Your task to perform on an android device: turn off airplane mode Image 0: 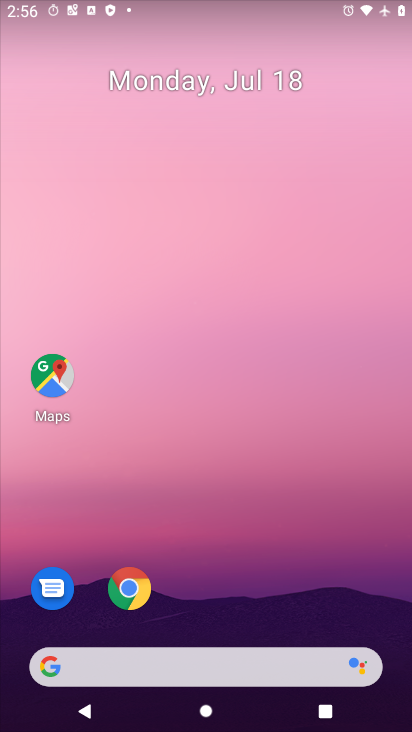
Step 0: drag from (221, 594) to (379, 7)
Your task to perform on an android device: turn off airplane mode Image 1: 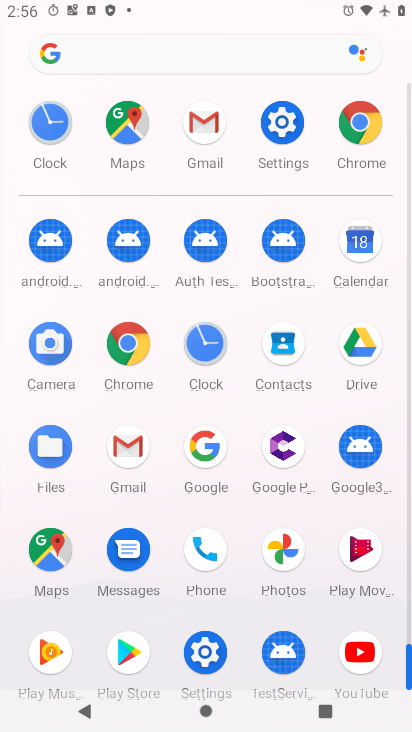
Step 1: click (291, 135)
Your task to perform on an android device: turn off airplane mode Image 2: 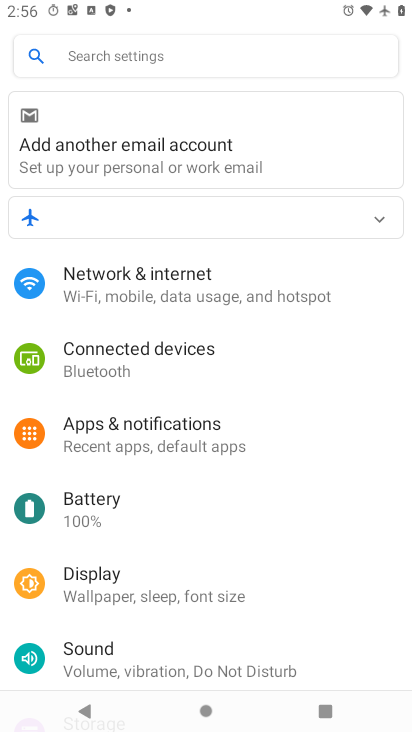
Step 2: drag from (162, 549) to (193, 312)
Your task to perform on an android device: turn off airplane mode Image 3: 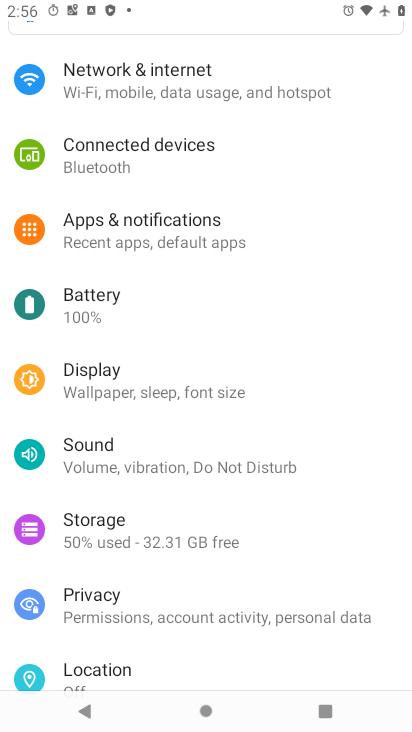
Step 3: click (154, 92)
Your task to perform on an android device: turn off airplane mode Image 4: 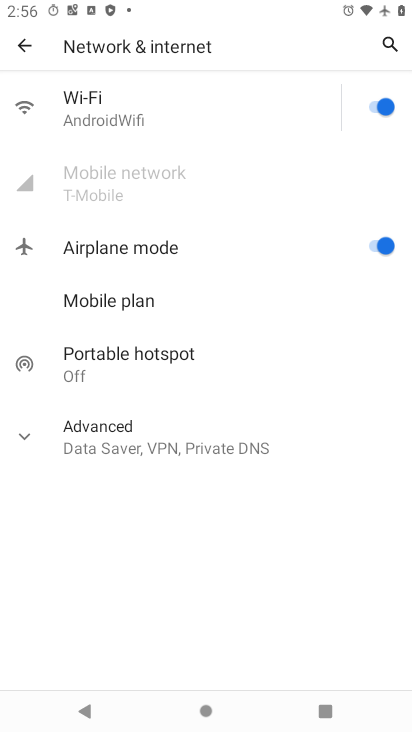
Step 4: click (371, 248)
Your task to perform on an android device: turn off airplane mode Image 5: 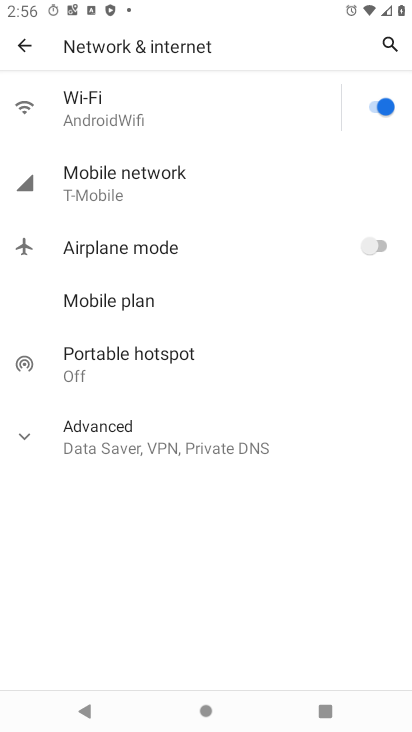
Step 5: task complete